Your task to perform on an android device: Toggle the flashlight Image 0: 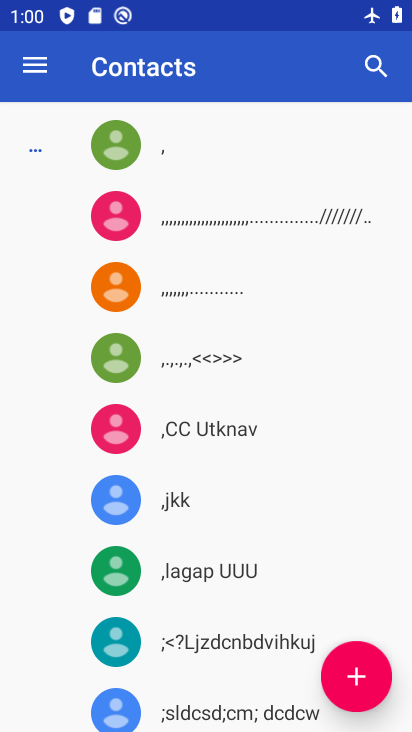
Step 0: press home button
Your task to perform on an android device: Toggle the flashlight Image 1: 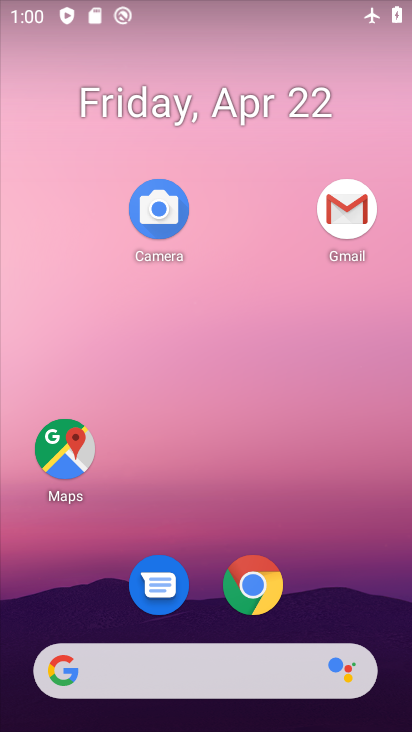
Step 1: drag from (230, 456) to (235, 145)
Your task to perform on an android device: Toggle the flashlight Image 2: 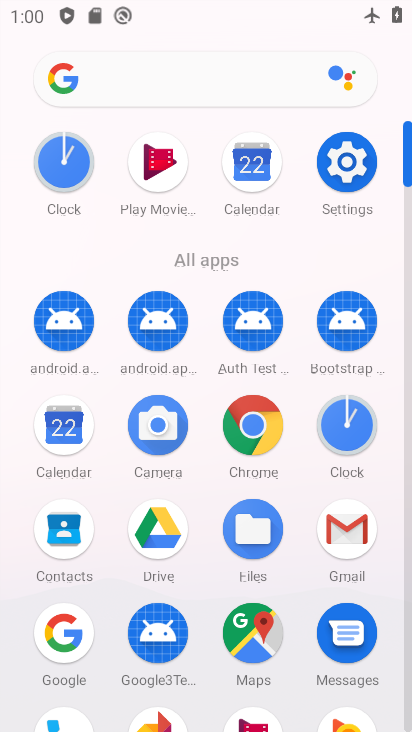
Step 2: click (342, 159)
Your task to perform on an android device: Toggle the flashlight Image 3: 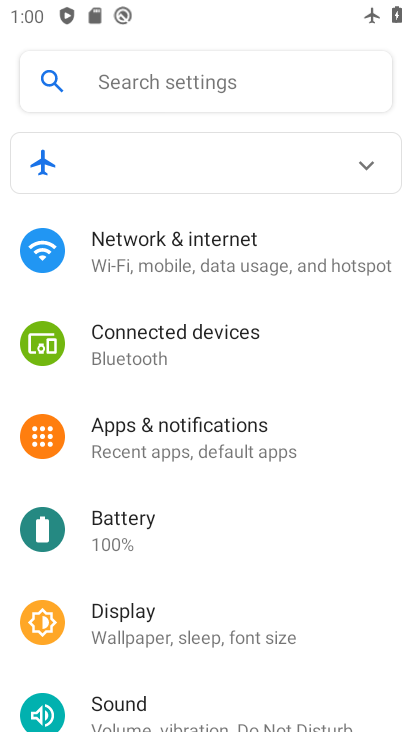
Step 3: click (306, 244)
Your task to perform on an android device: Toggle the flashlight Image 4: 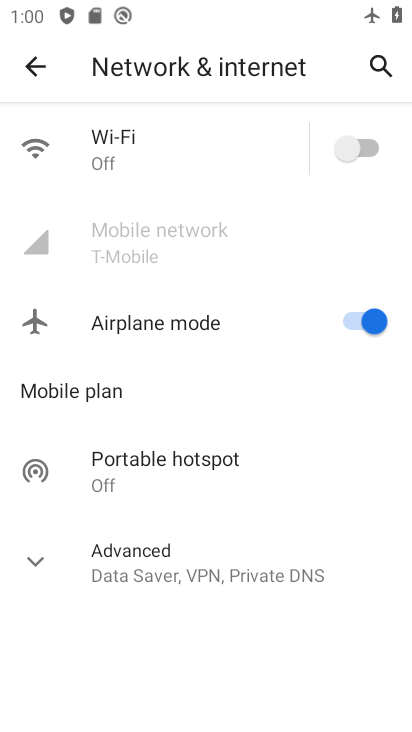
Step 4: click (347, 310)
Your task to perform on an android device: Toggle the flashlight Image 5: 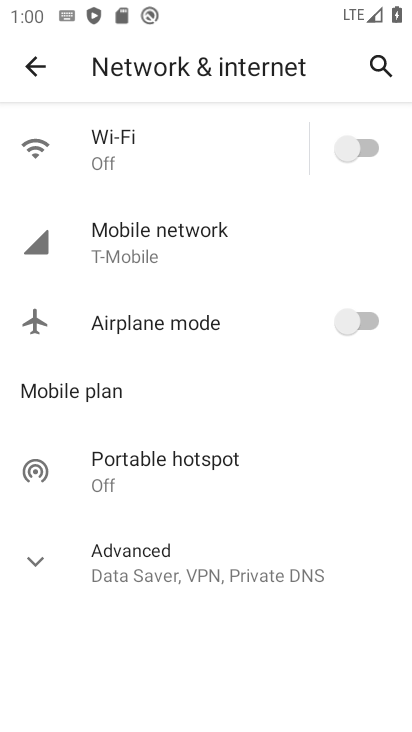
Step 5: click (373, 146)
Your task to perform on an android device: Toggle the flashlight Image 6: 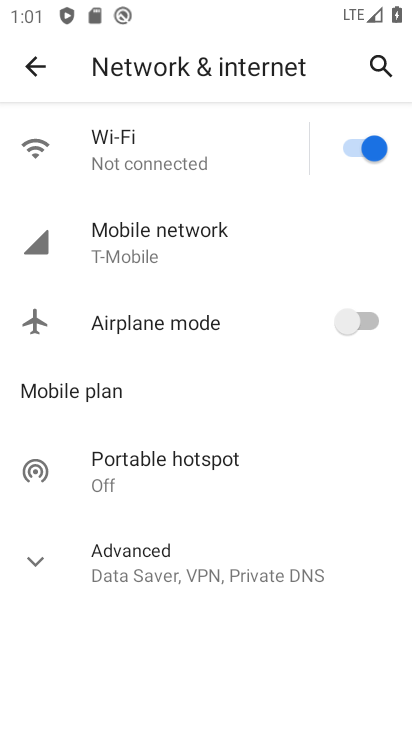
Step 6: click (38, 66)
Your task to perform on an android device: Toggle the flashlight Image 7: 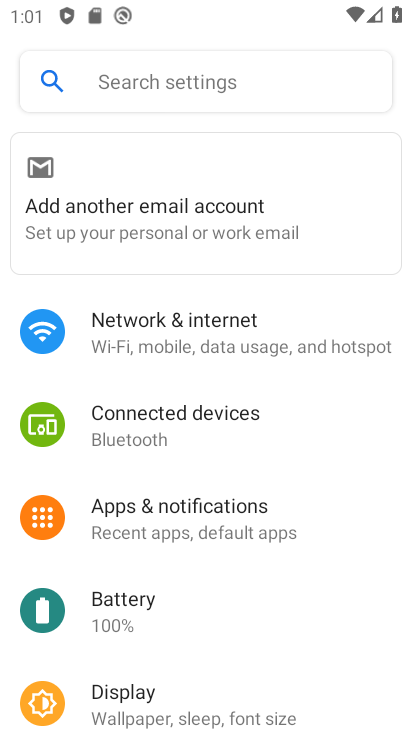
Step 7: click (255, 75)
Your task to perform on an android device: Toggle the flashlight Image 8: 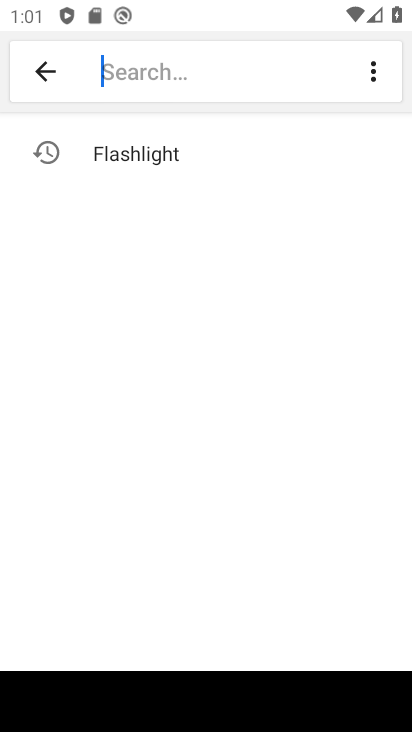
Step 8: click (150, 154)
Your task to perform on an android device: Toggle the flashlight Image 9: 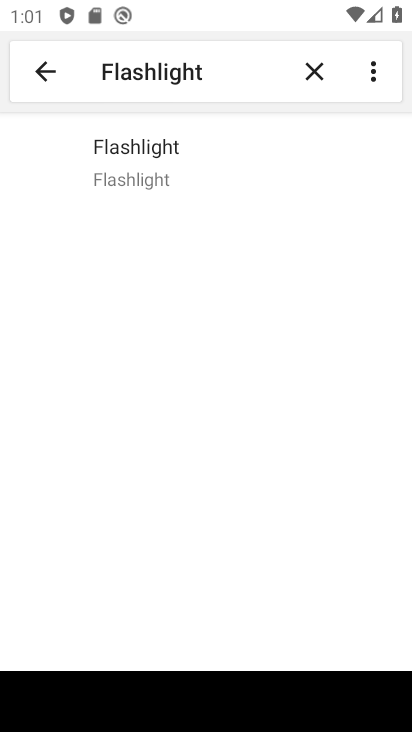
Step 9: task complete